Your task to perform on an android device: toggle pop-ups in chrome Image 0: 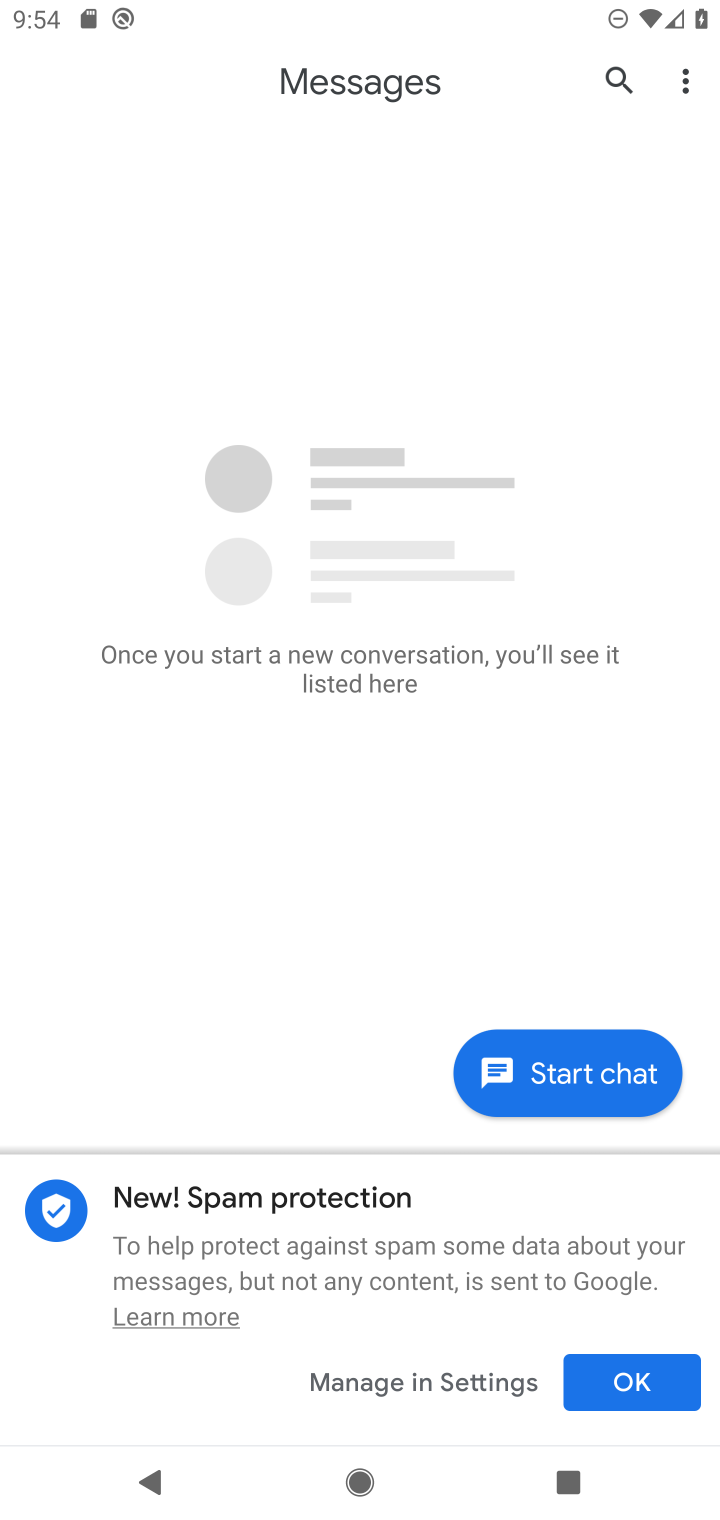
Step 0: press home button
Your task to perform on an android device: toggle pop-ups in chrome Image 1: 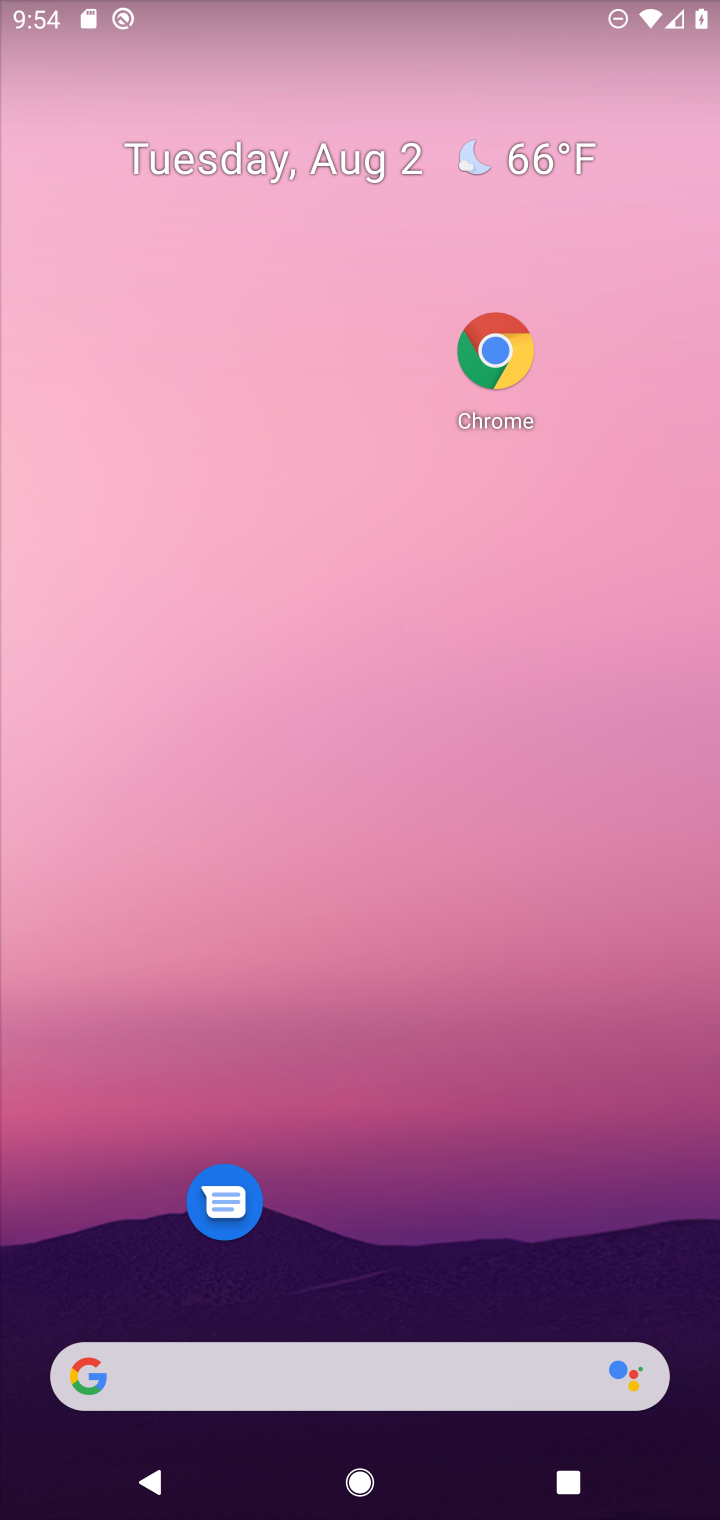
Step 1: click (498, 354)
Your task to perform on an android device: toggle pop-ups in chrome Image 2: 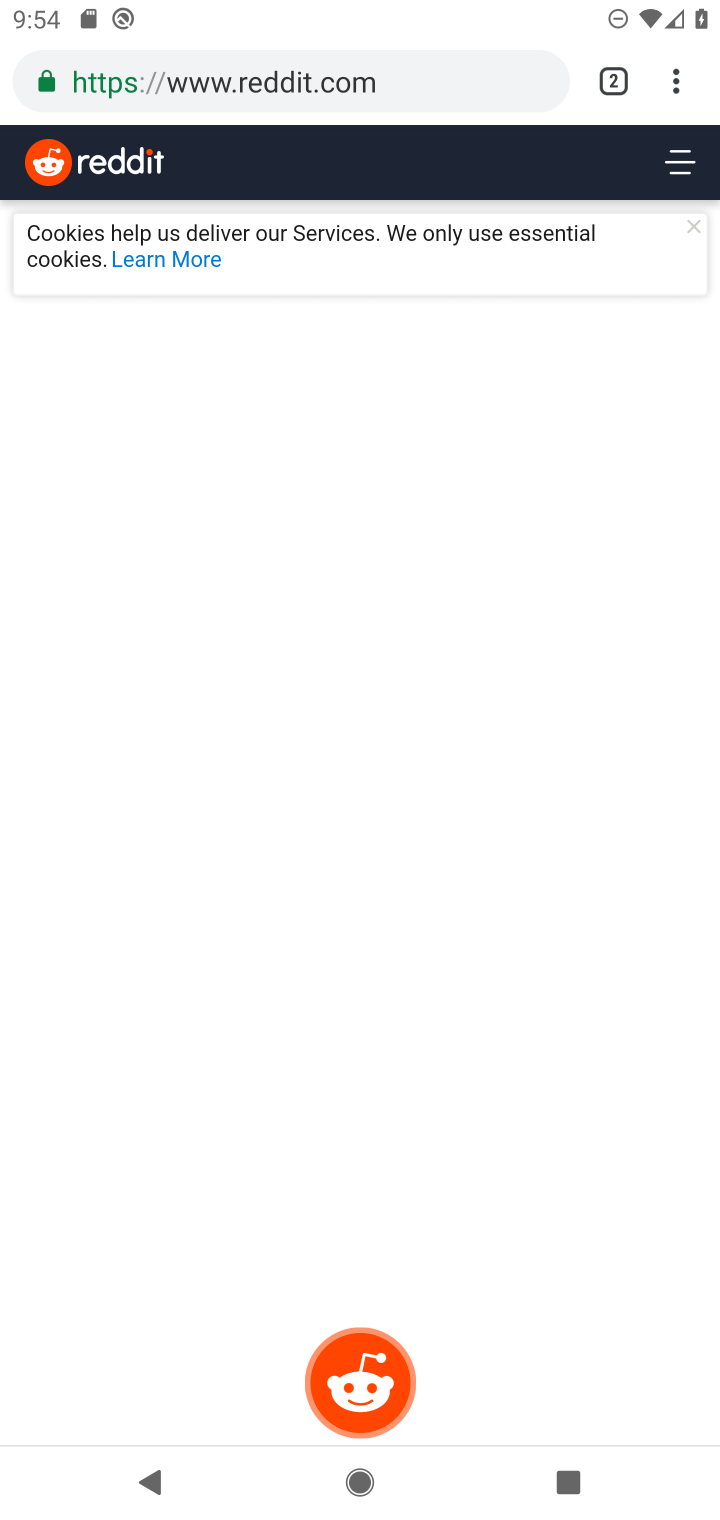
Step 2: drag from (679, 87) to (414, 991)
Your task to perform on an android device: toggle pop-ups in chrome Image 3: 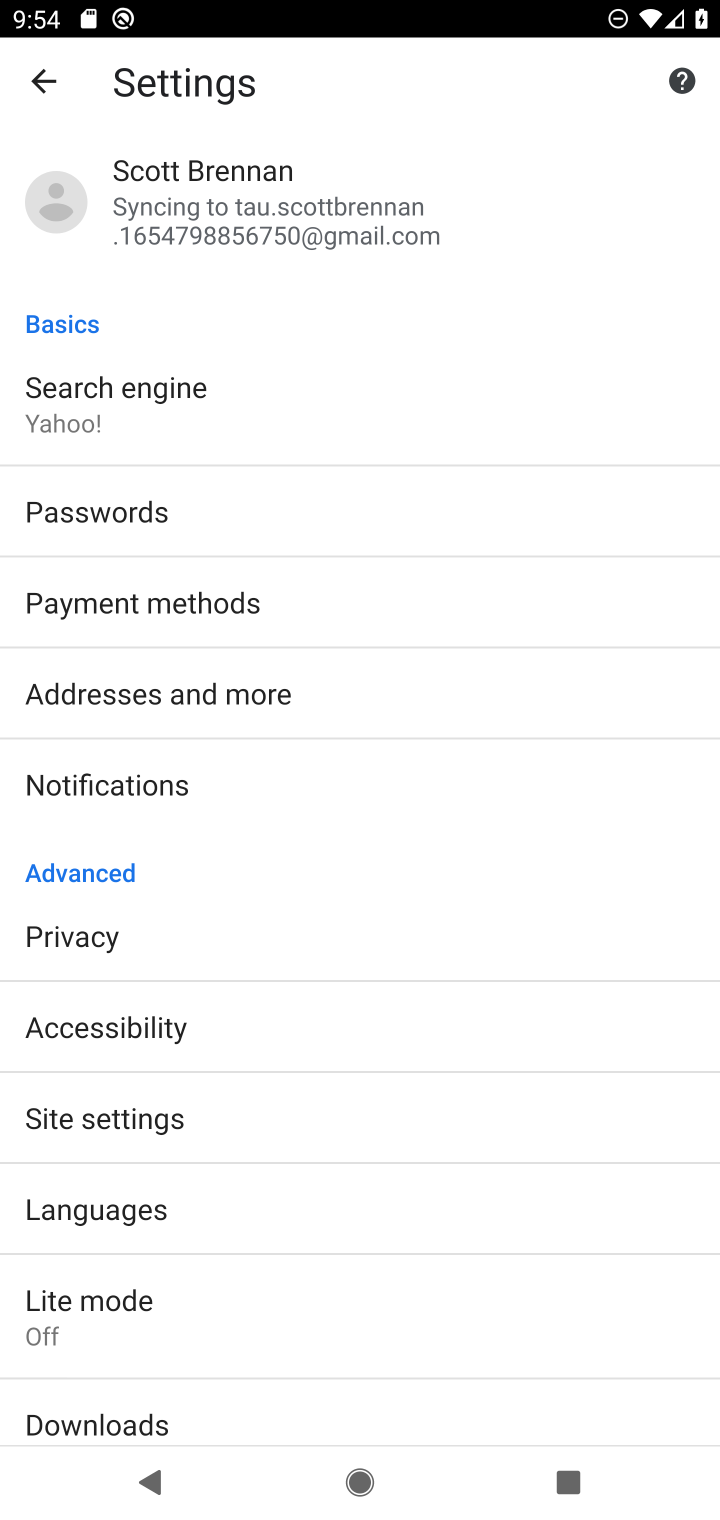
Step 3: click (148, 1118)
Your task to perform on an android device: toggle pop-ups in chrome Image 4: 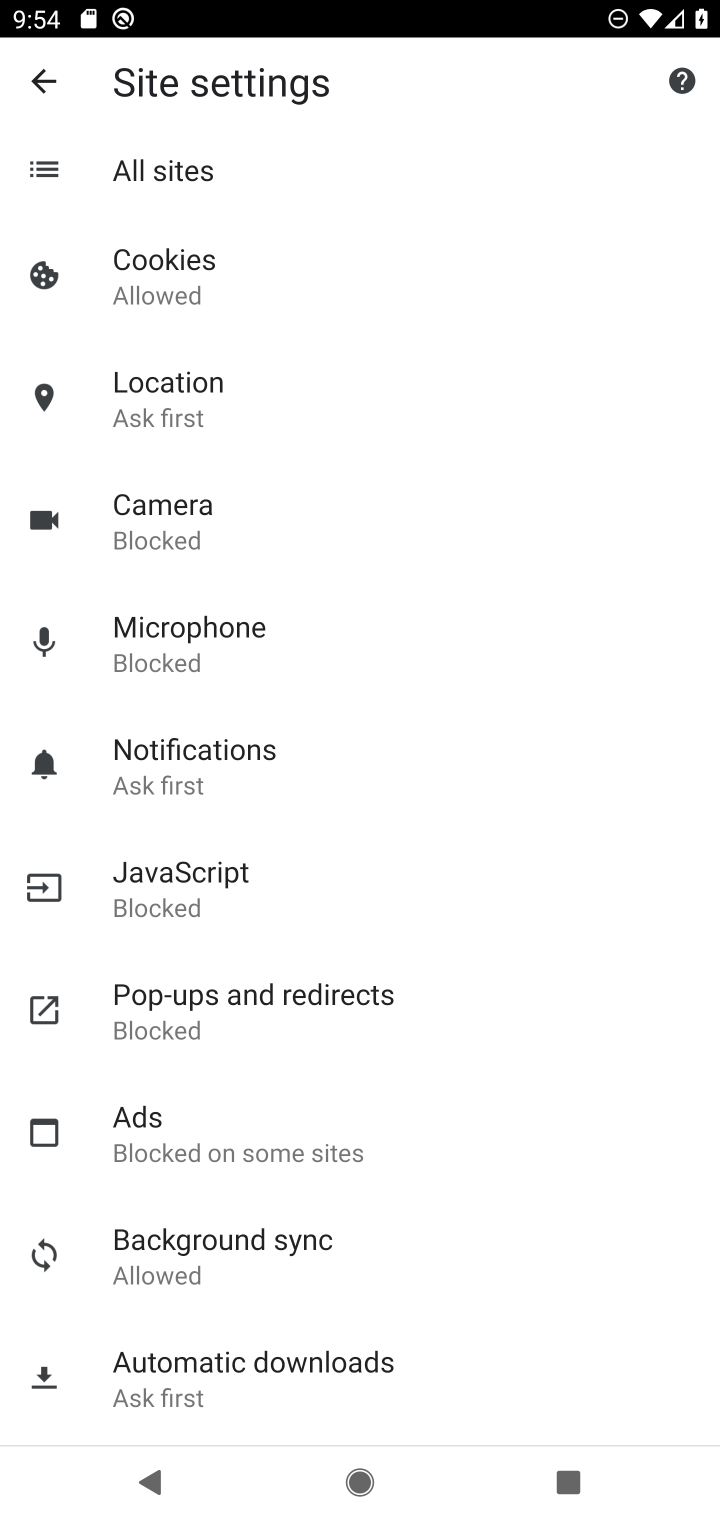
Step 4: click (201, 1005)
Your task to perform on an android device: toggle pop-ups in chrome Image 5: 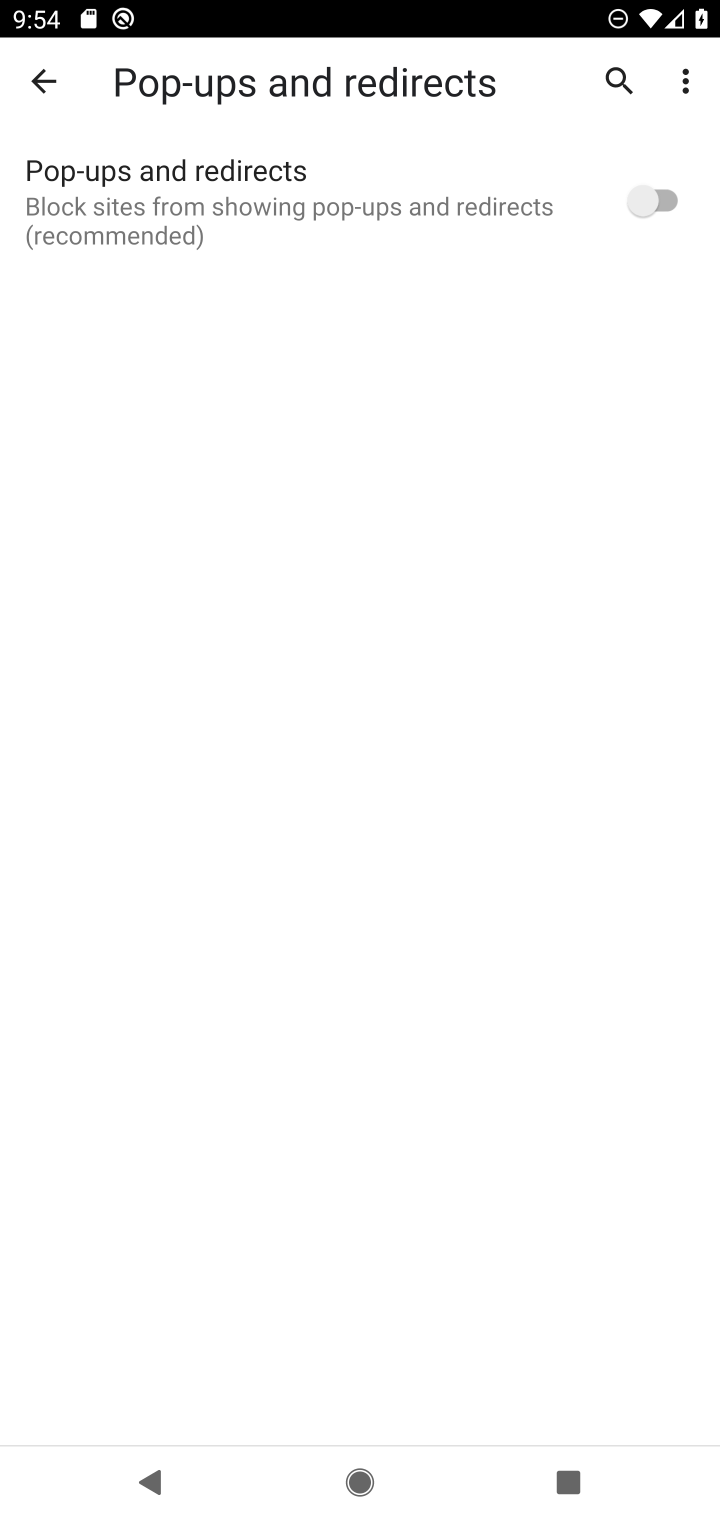
Step 5: click (642, 201)
Your task to perform on an android device: toggle pop-ups in chrome Image 6: 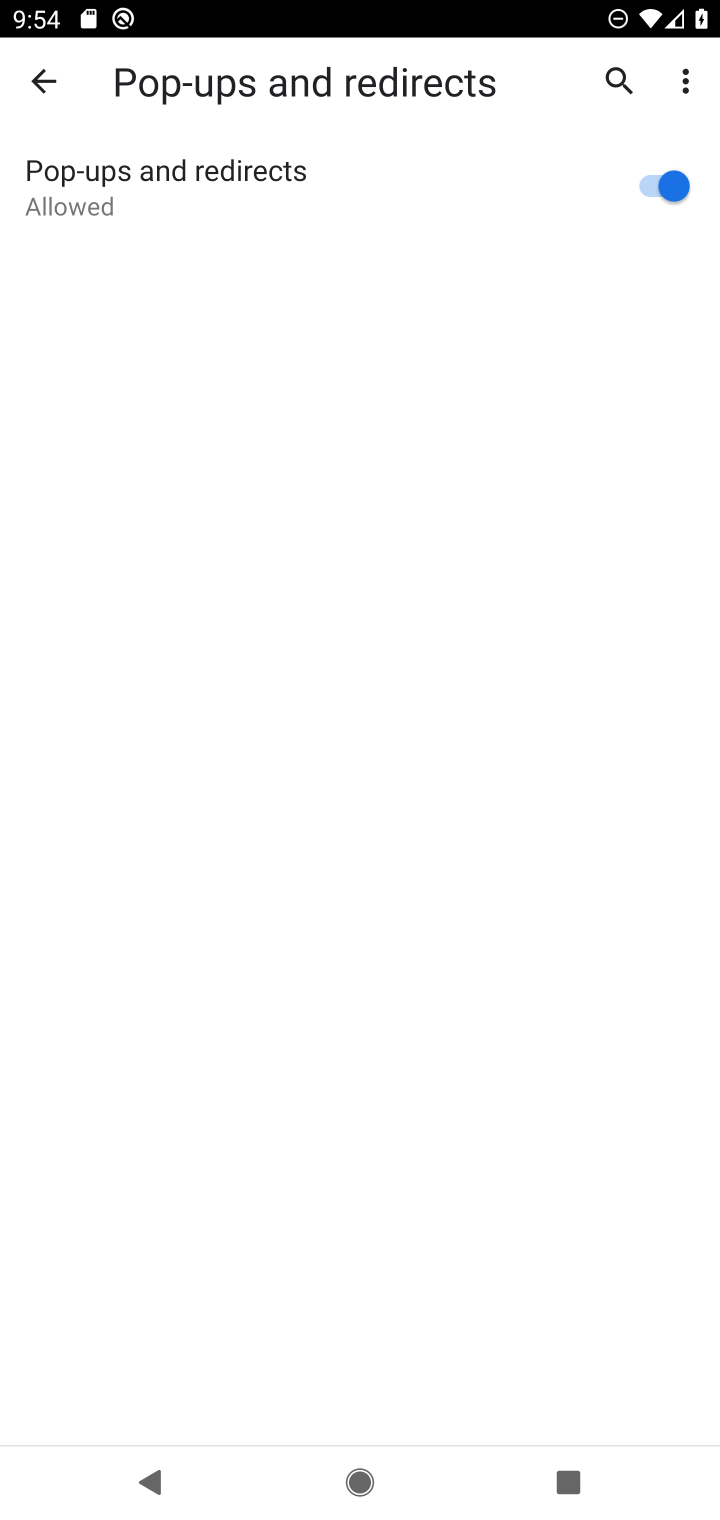
Step 6: task complete